Your task to perform on an android device: Go to location settings Image 0: 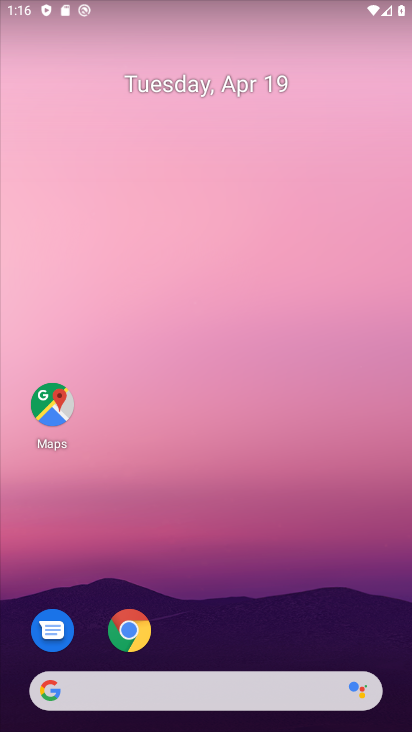
Step 0: drag from (295, 632) to (194, 19)
Your task to perform on an android device: Go to location settings Image 1: 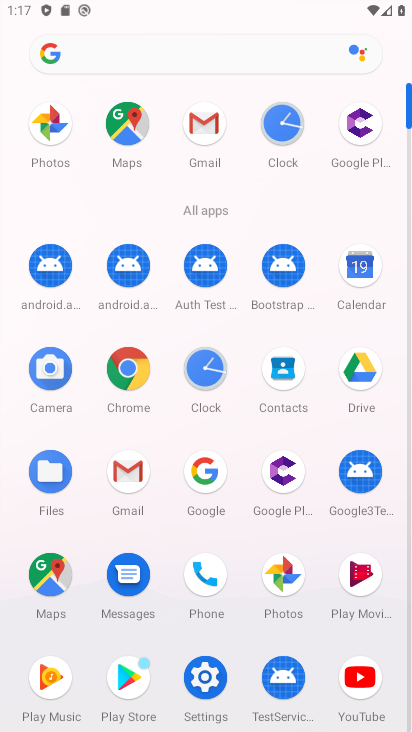
Step 1: click (197, 678)
Your task to perform on an android device: Go to location settings Image 2: 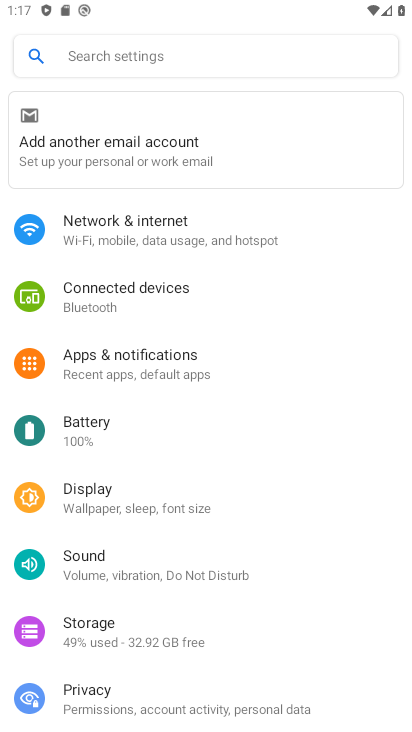
Step 2: drag from (173, 381) to (159, 205)
Your task to perform on an android device: Go to location settings Image 3: 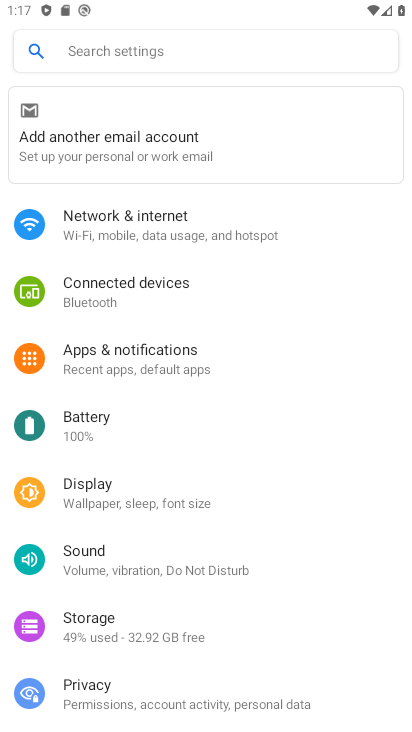
Step 3: drag from (165, 674) to (133, 314)
Your task to perform on an android device: Go to location settings Image 4: 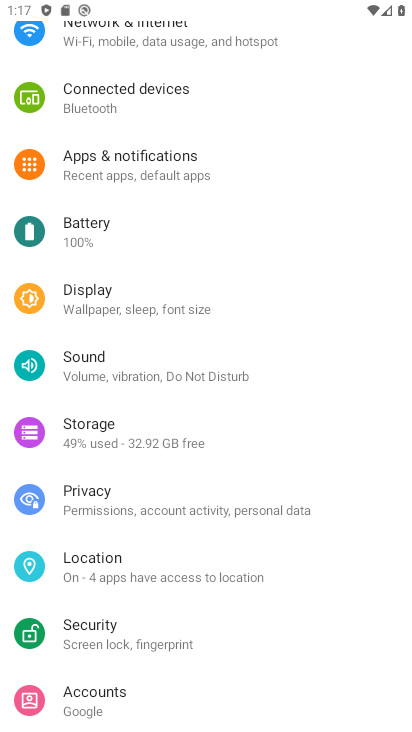
Step 4: drag from (146, 610) to (153, 445)
Your task to perform on an android device: Go to location settings Image 5: 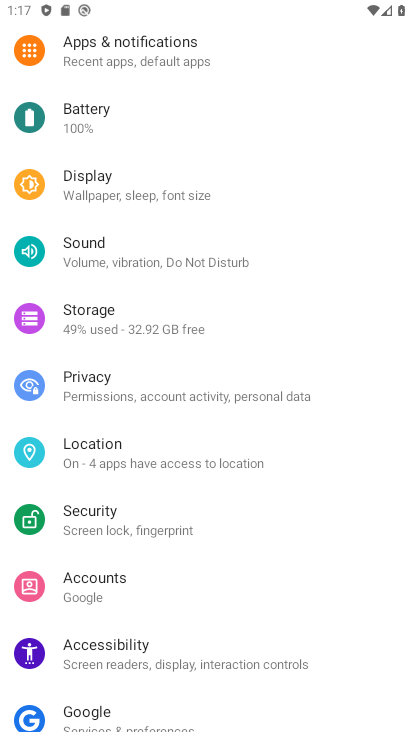
Step 5: click (135, 458)
Your task to perform on an android device: Go to location settings Image 6: 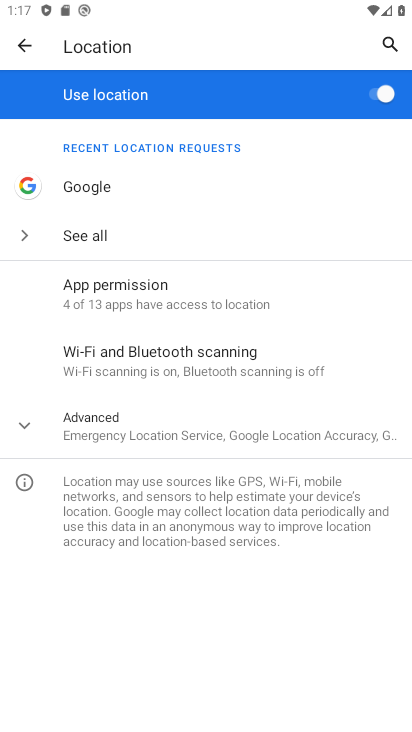
Step 6: click (136, 414)
Your task to perform on an android device: Go to location settings Image 7: 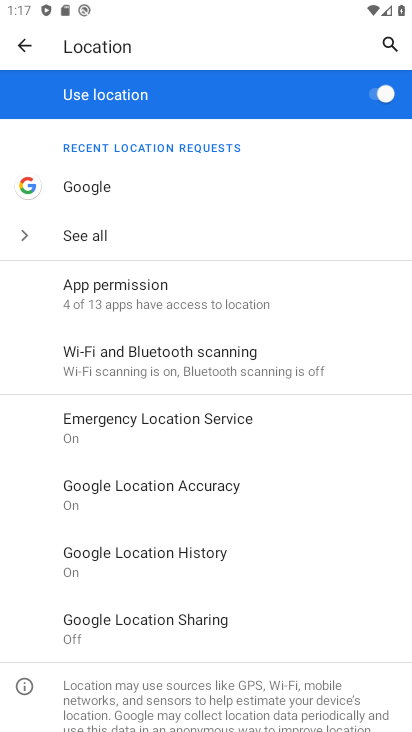
Step 7: task complete